Your task to perform on an android device: change timer sound Image 0: 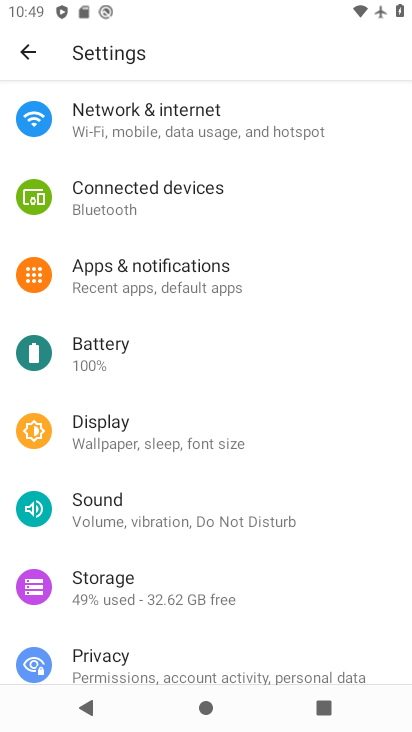
Step 0: press home button
Your task to perform on an android device: change timer sound Image 1: 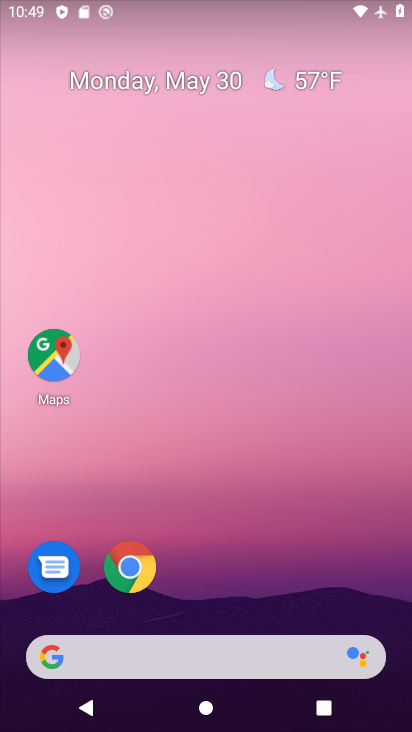
Step 1: drag from (242, 590) to (194, 223)
Your task to perform on an android device: change timer sound Image 2: 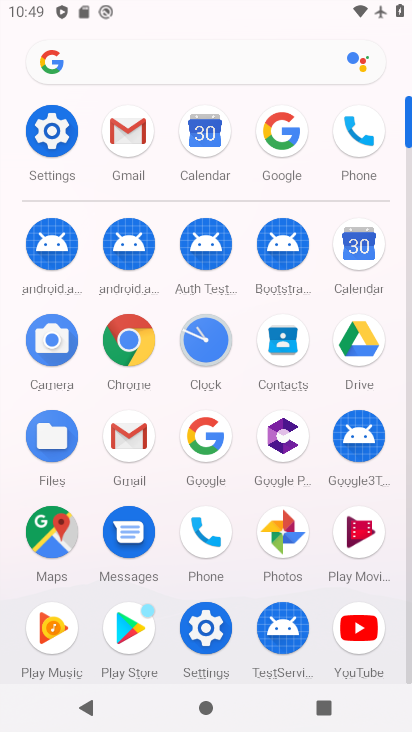
Step 2: click (199, 346)
Your task to perform on an android device: change timer sound Image 3: 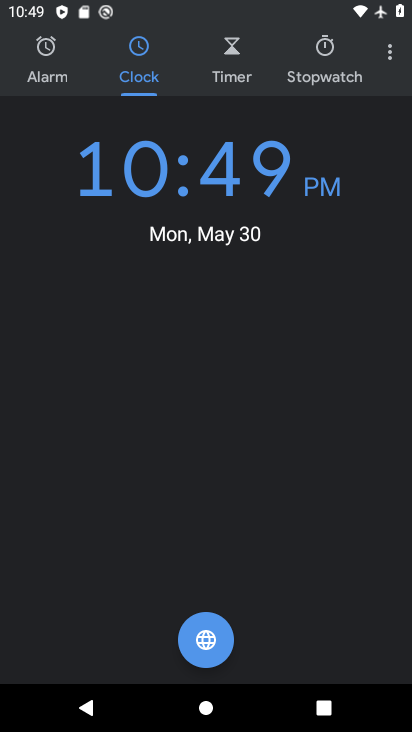
Step 3: click (378, 60)
Your task to perform on an android device: change timer sound Image 4: 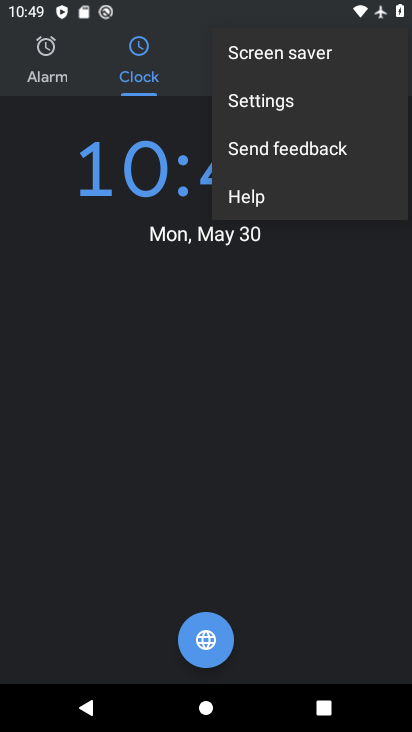
Step 4: click (253, 109)
Your task to perform on an android device: change timer sound Image 5: 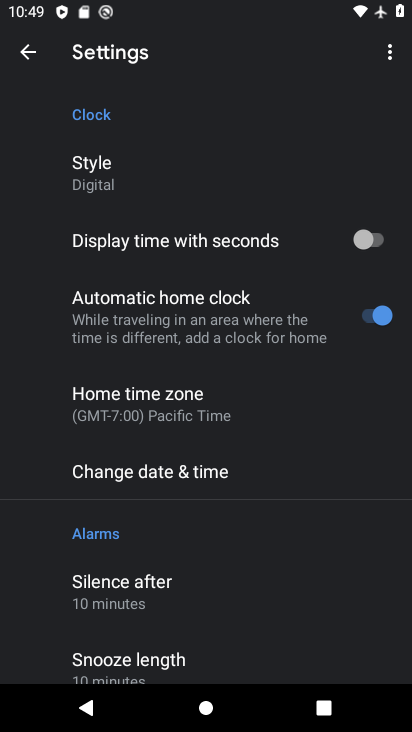
Step 5: drag from (260, 523) to (249, 225)
Your task to perform on an android device: change timer sound Image 6: 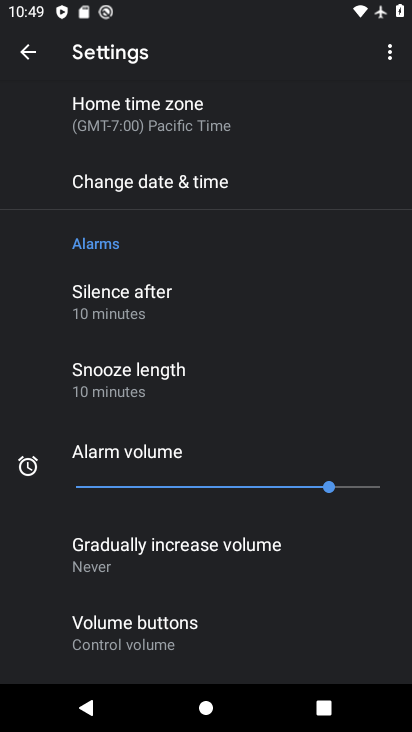
Step 6: drag from (215, 546) to (206, 340)
Your task to perform on an android device: change timer sound Image 7: 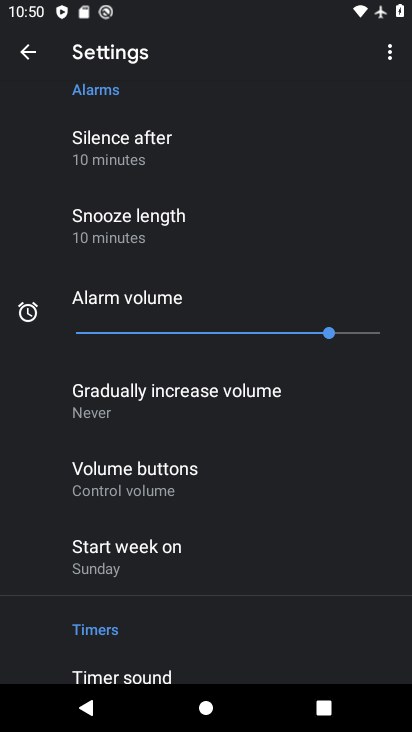
Step 7: drag from (207, 527) to (217, 285)
Your task to perform on an android device: change timer sound Image 8: 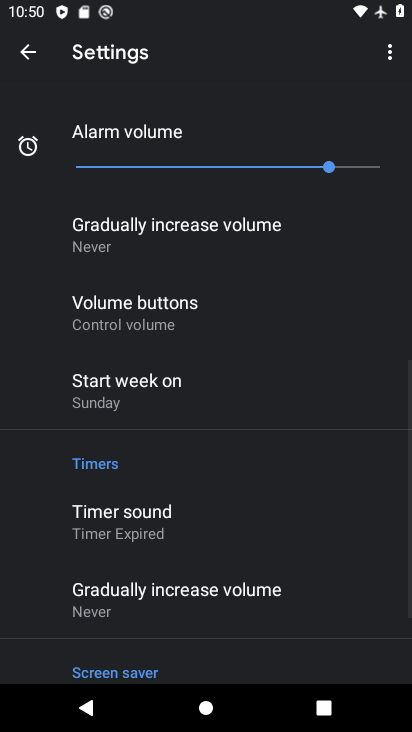
Step 8: click (197, 517)
Your task to perform on an android device: change timer sound Image 9: 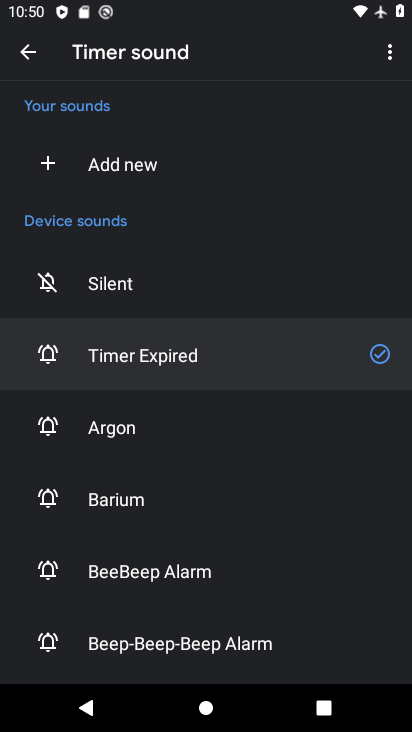
Step 9: click (196, 559)
Your task to perform on an android device: change timer sound Image 10: 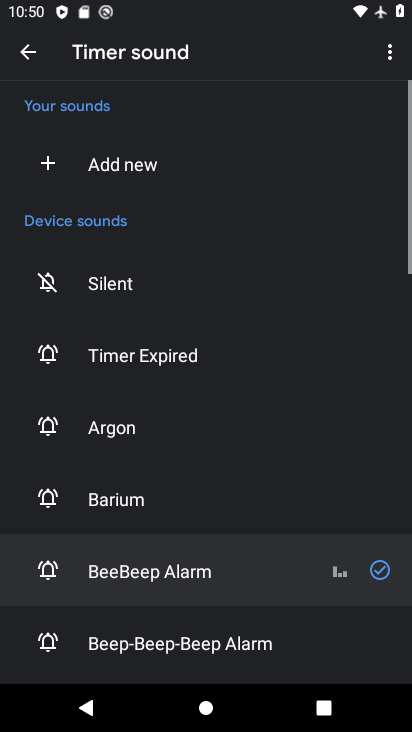
Step 10: task complete